Your task to perform on an android device: Open settings Image 0: 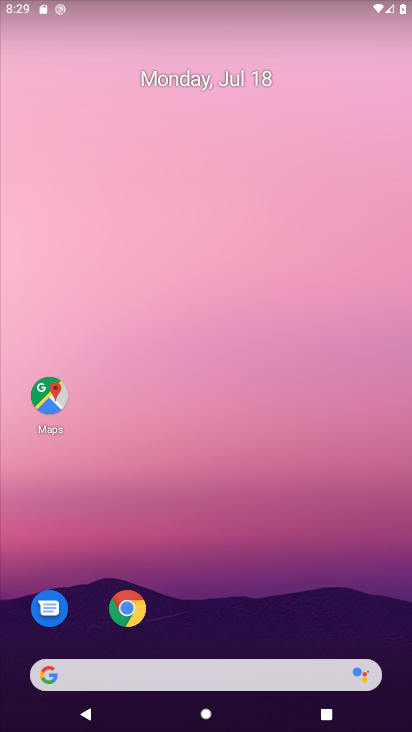
Step 0: drag from (174, 674) to (244, 146)
Your task to perform on an android device: Open settings Image 1: 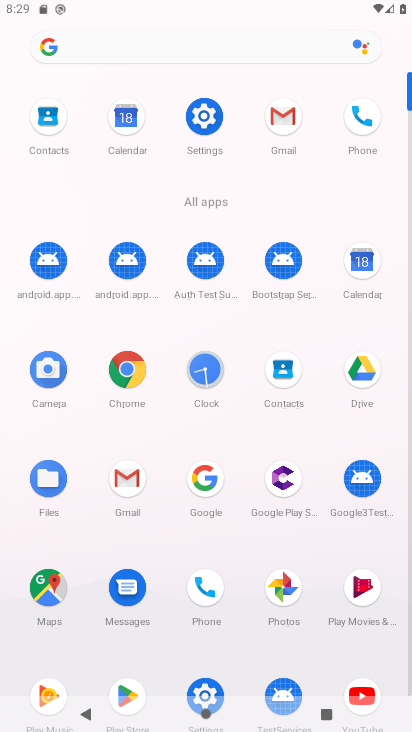
Step 1: click (204, 116)
Your task to perform on an android device: Open settings Image 2: 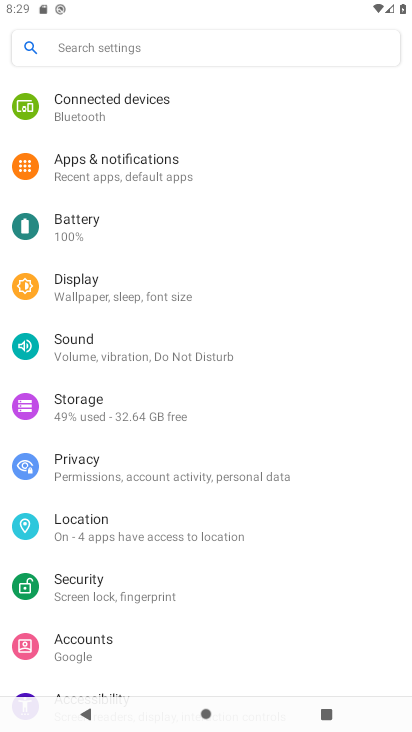
Step 2: task complete